Your task to perform on an android device: Open Google Chrome and click the shortcut for Amazon.com Image 0: 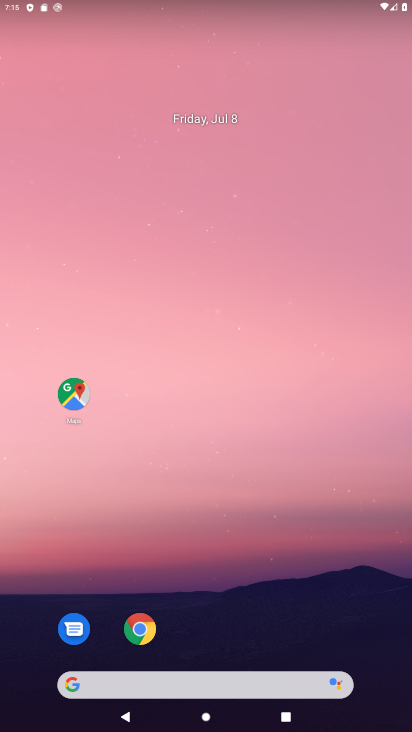
Step 0: press home button
Your task to perform on an android device: Open Google Chrome and click the shortcut for Amazon.com Image 1: 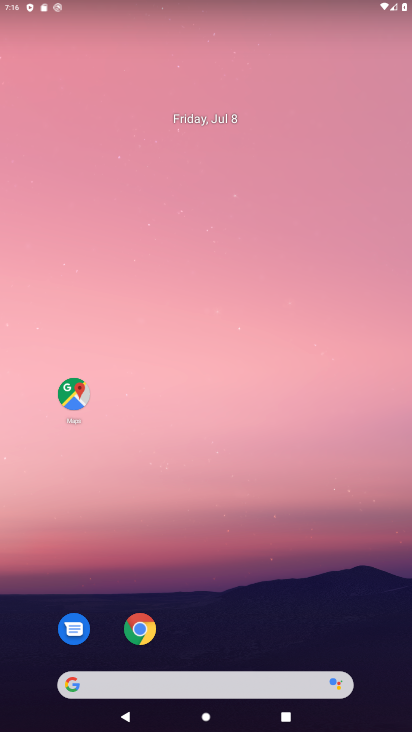
Step 1: click (141, 625)
Your task to perform on an android device: Open Google Chrome and click the shortcut for Amazon.com Image 2: 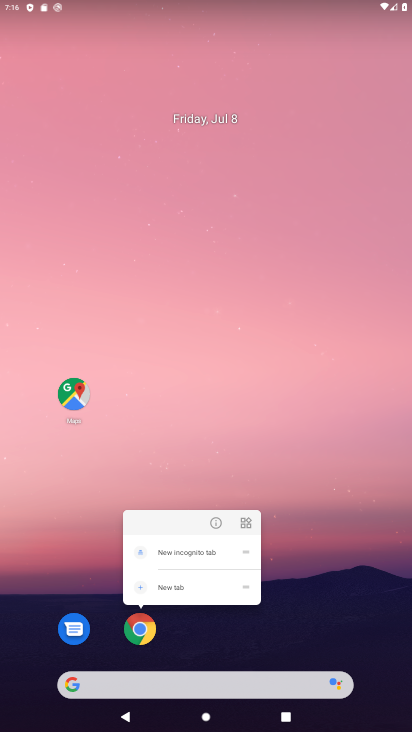
Step 2: click (141, 625)
Your task to perform on an android device: Open Google Chrome and click the shortcut for Amazon.com Image 3: 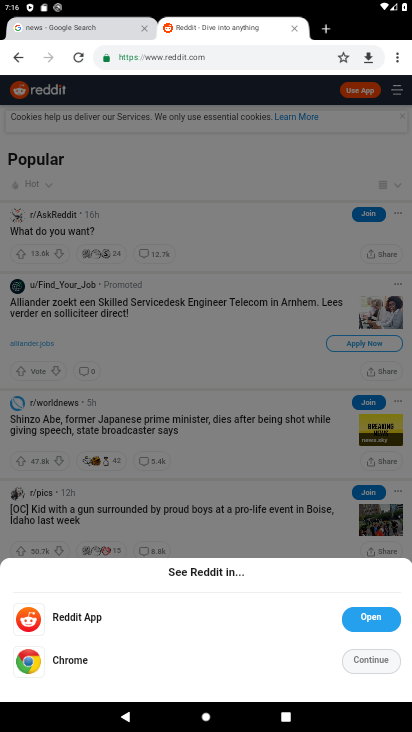
Step 3: click (326, 33)
Your task to perform on an android device: Open Google Chrome and click the shortcut for Amazon.com Image 4: 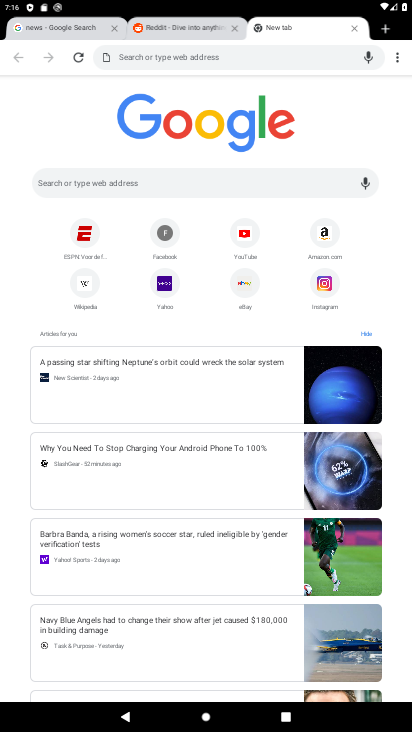
Step 4: click (338, 247)
Your task to perform on an android device: Open Google Chrome and click the shortcut for Amazon.com Image 5: 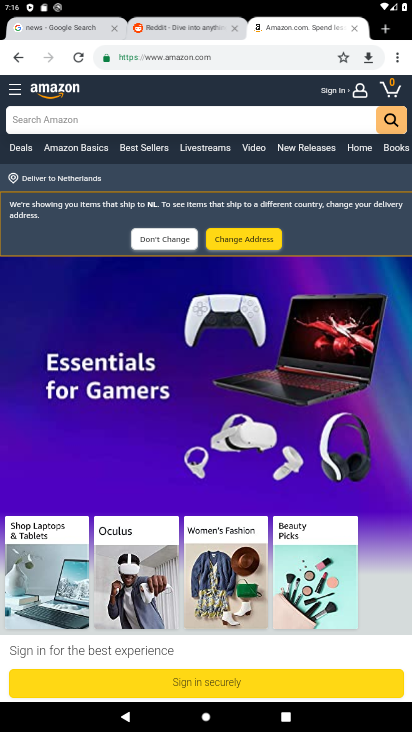
Step 5: task complete